Your task to perform on an android device: Check the weather Image 0: 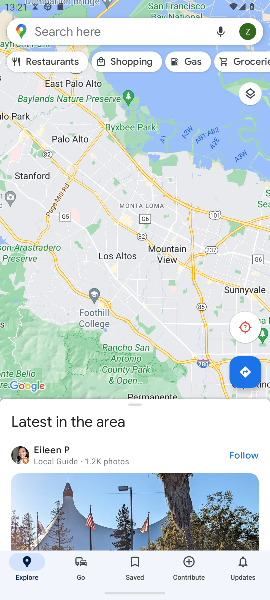
Step 0: press home button
Your task to perform on an android device: Check the weather Image 1: 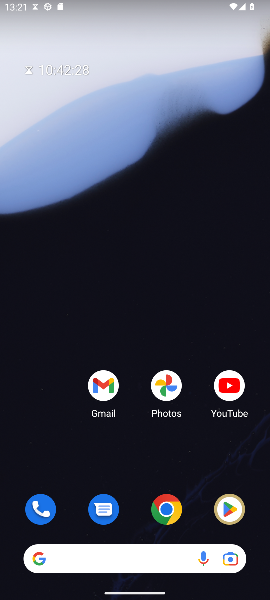
Step 1: drag from (147, 510) to (142, 39)
Your task to perform on an android device: Check the weather Image 2: 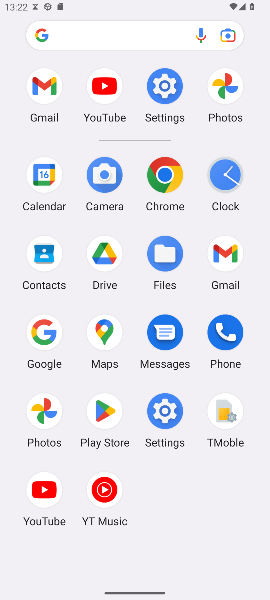
Step 2: click (41, 332)
Your task to perform on an android device: Check the weather Image 3: 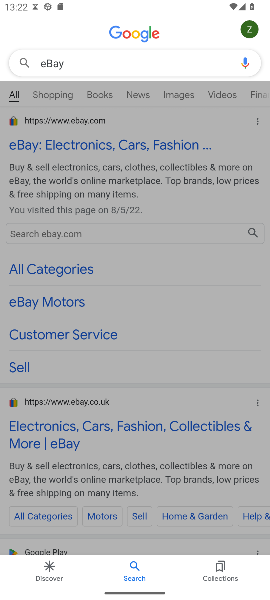
Step 3: click (97, 57)
Your task to perform on an android device: Check the weather Image 4: 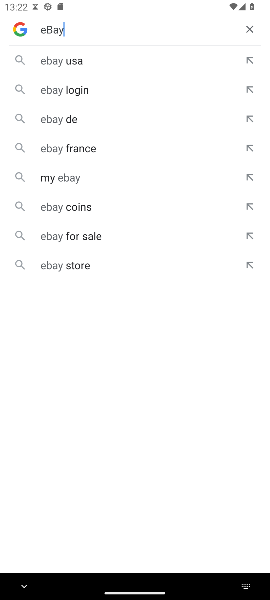
Step 4: click (249, 27)
Your task to perform on an android device: Check the weather Image 5: 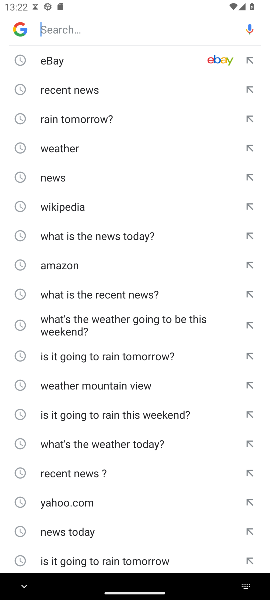
Step 5: type "weather"
Your task to perform on an android device: Check the weather Image 6: 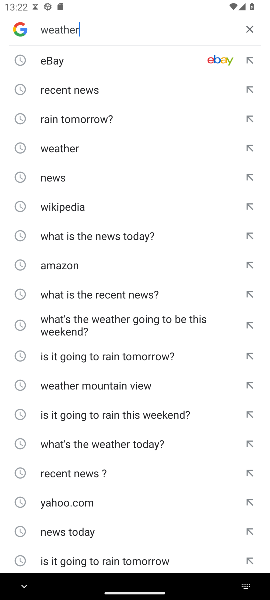
Step 6: press enter
Your task to perform on an android device: Check the weather Image 7: 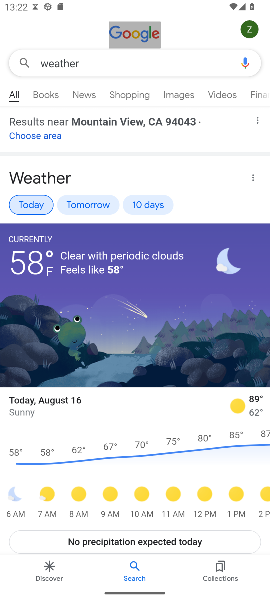
Step 7: task complete